Your task to perform on an android device: What's the weather going to be tomorrow? Image 0: 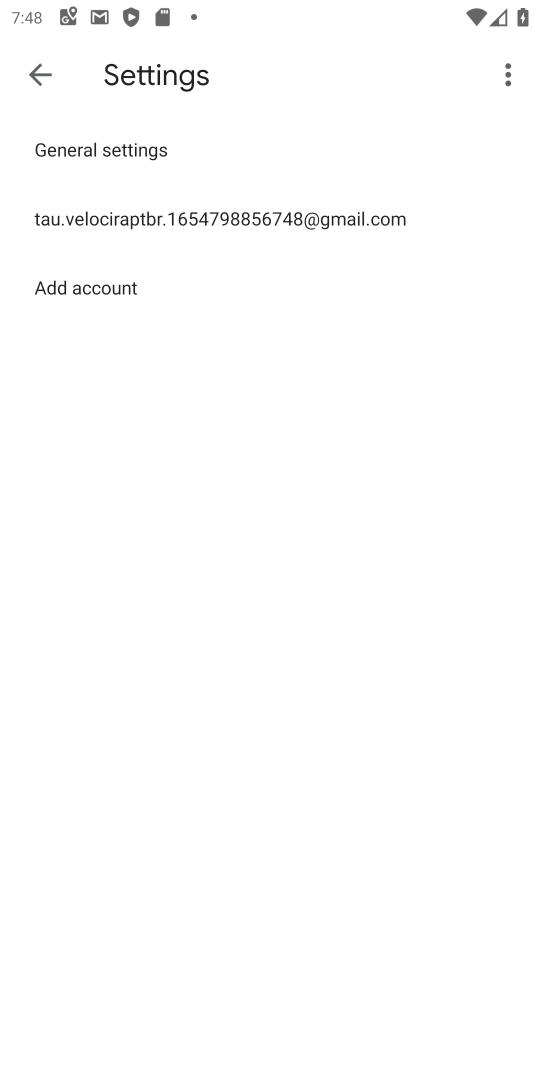
Step 0: press home button
Your task to perform on an android device: What's the weather going to be tomorrow? Image 1: 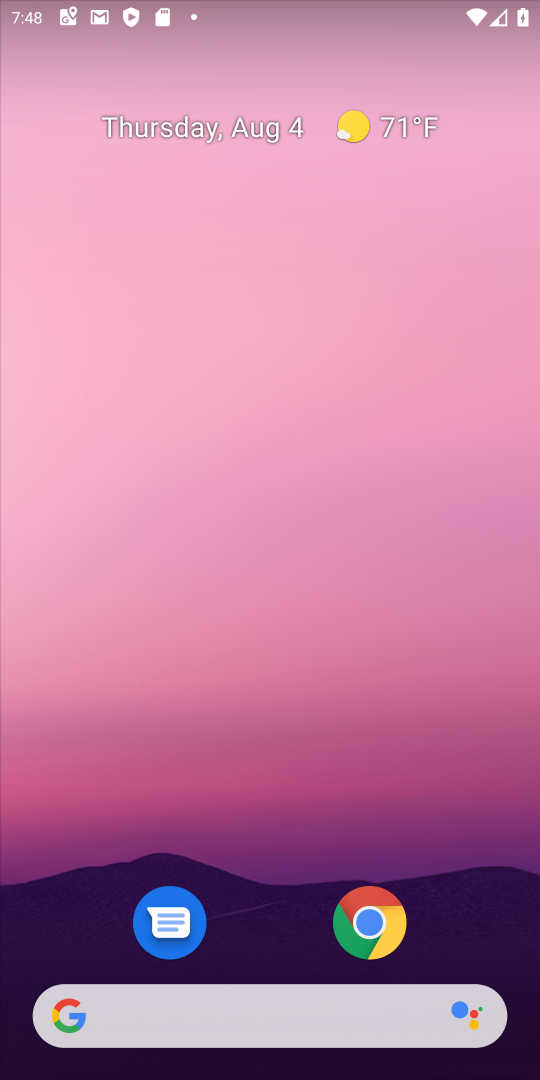
Step 1: click (414, 127)
Your task to perform on an android device: What's the weather going to be tomorrow? Image 2: 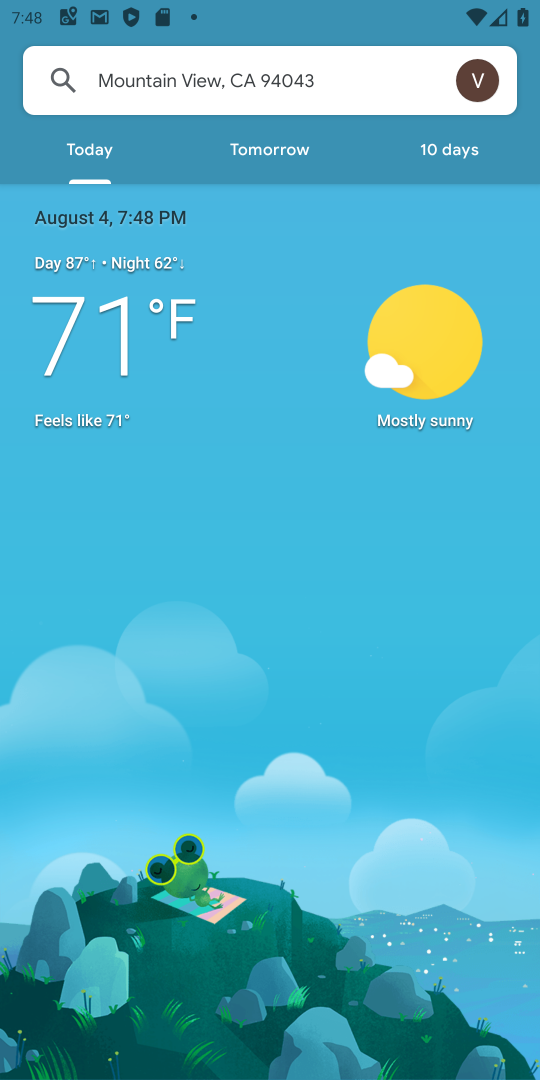
Step 2: click (255, 167)
Your task to perform on an android device: What's the weather going to be tomorrow? Image 3: 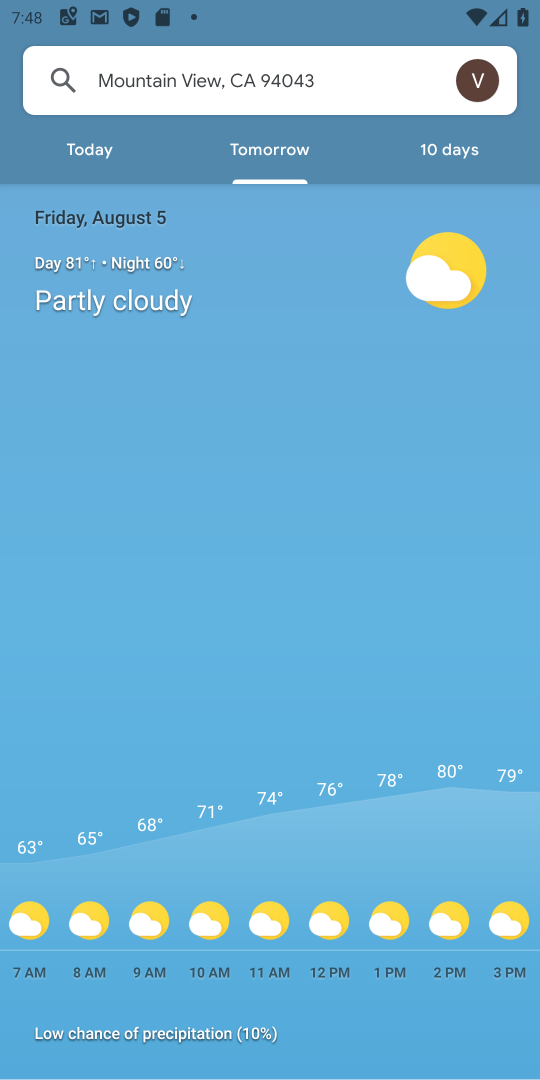
Step 3: task complete